Your task to perform on an android device: Open Google Chrome Image 0: 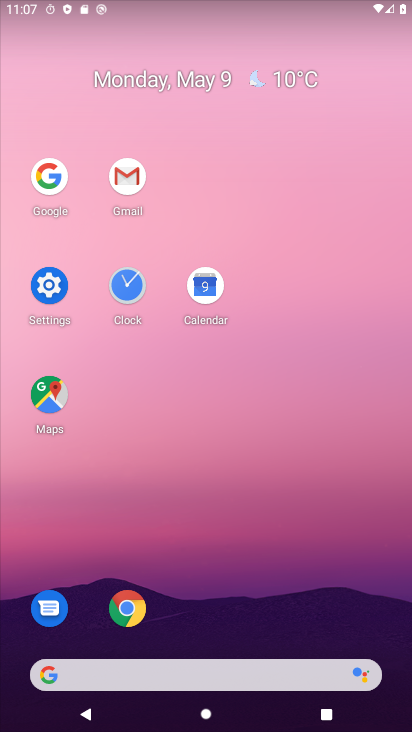
Step 0: click (134, 603)
Your task to perform on an android device: Open Google Chrome Image 1: 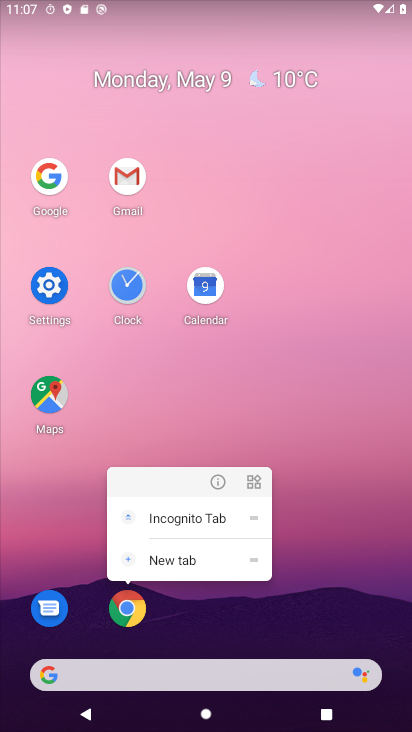
Step 1: click (124, 611)
Your task to perform on an android device: Open Google Chrome Image 2: 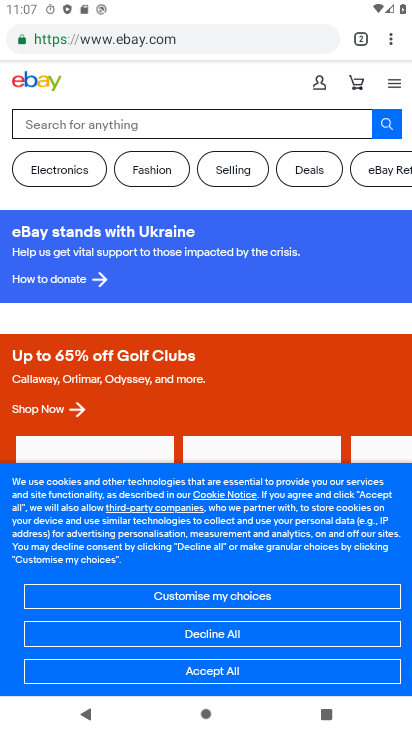
Step 2: task complete